Your task to perform on an android device: Search for Italian restaurants on Maps Image 0: 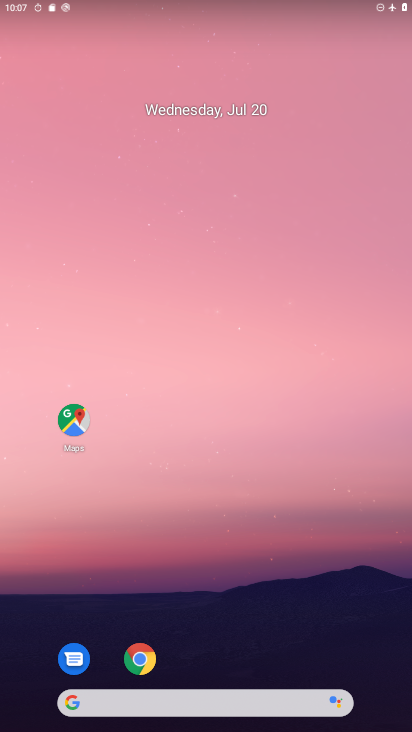
Step 0: click (70, 413)
Your task to perform on an android device: Search for Italian restaurants on Maps Image 1: 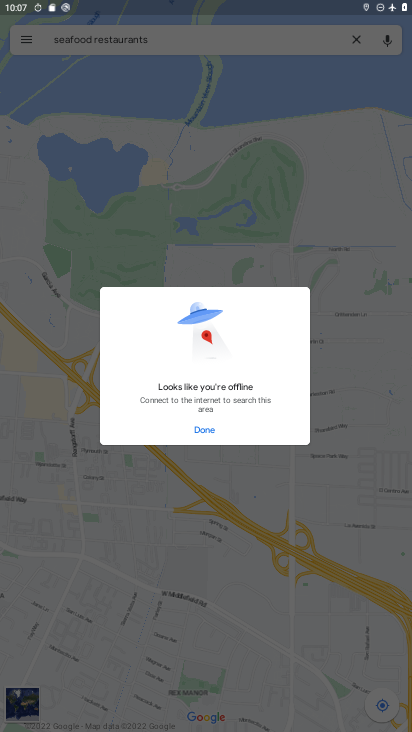
Step 1: click (213, 432)
Your task to perform on an android device: Search for Italian restaurants on Maps Image 2: 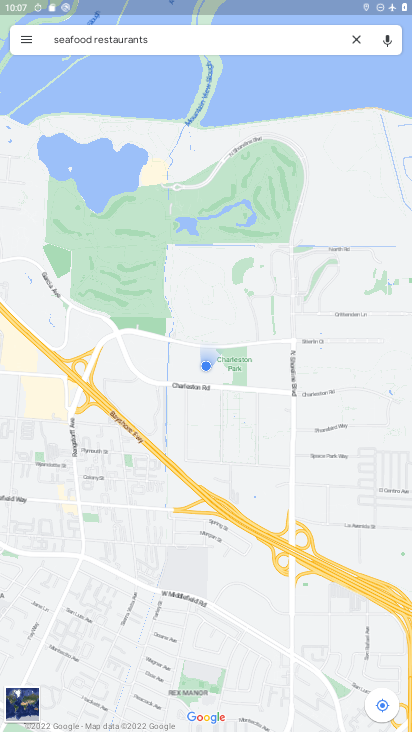
Step 2: click (231, 51)
Your task to perform on an android device: Search for Italian restaurants on Maps Image 3: 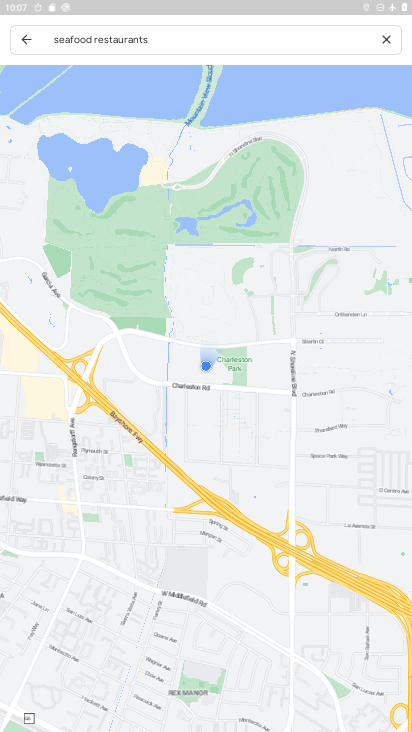
Step 3: click (358, 34)
Your task to perform on an android device: Search for Italian restaurants on Maps Image 4: 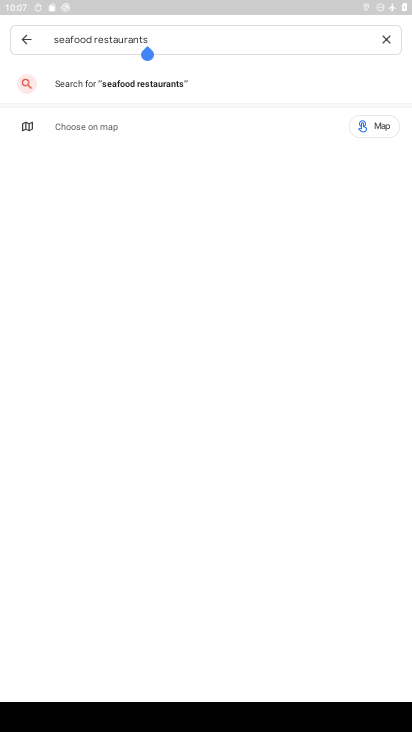
Step 4: click (379, 36)
Your task to perform on an android device: Search for Italian restaurants on Maps Image 5: 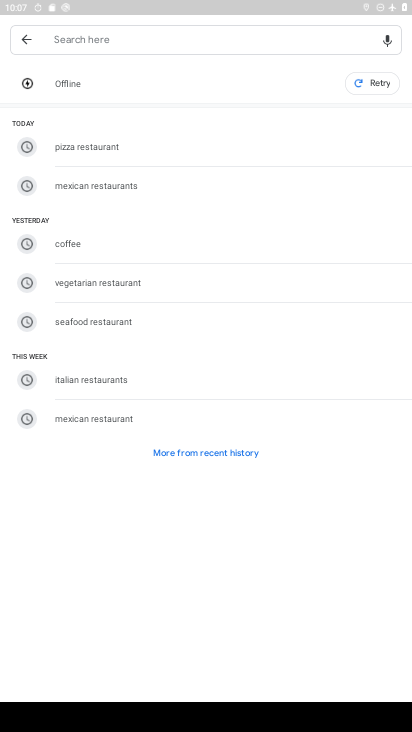
Step 5: click (105, 379)
Your task to perform on an android device: Search for Italian restaurants on Maps Image 6: 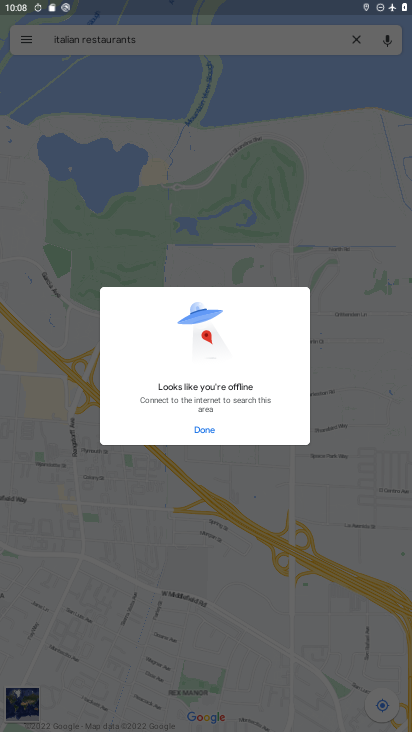
Step 6: task complete